Your task to perform on an android device: Open Chrome and go to settings Image 0: 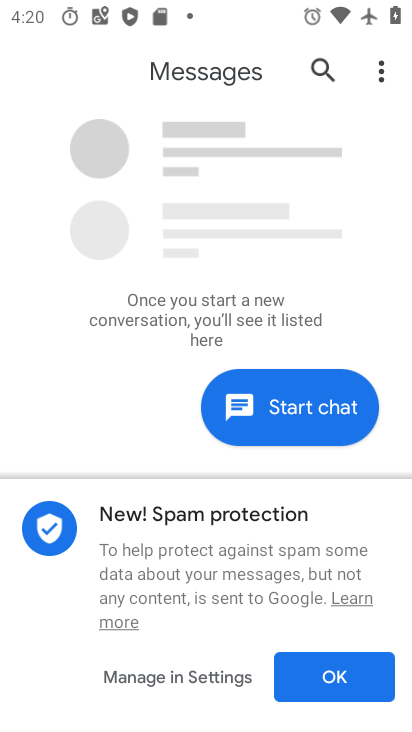
Step 0: press home button
Your task to perform on an android device: Open Chrome and go to settings Image 1: 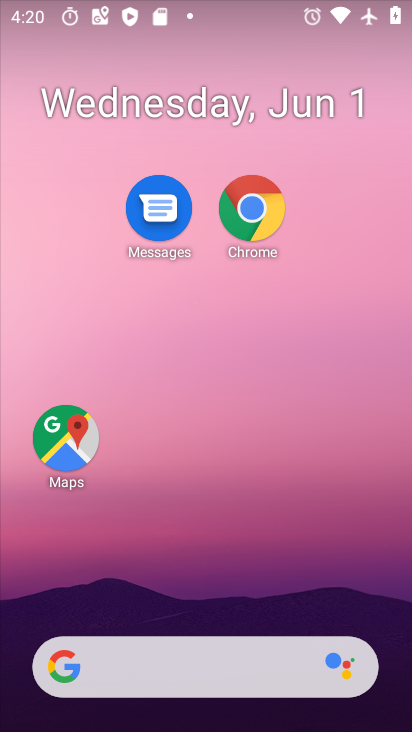
Step 1: click (268, 217)
Your task to perform on an android device: Open Chrome and go to settings Image 2: 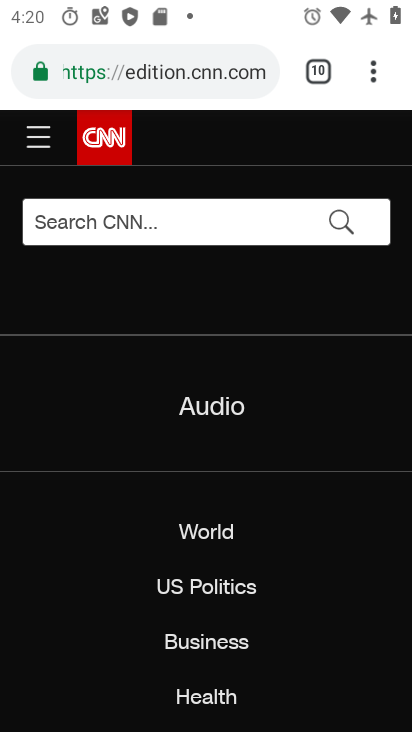
Step 2: task complete